Your task to perform on an android device: See recent photos Image 0: 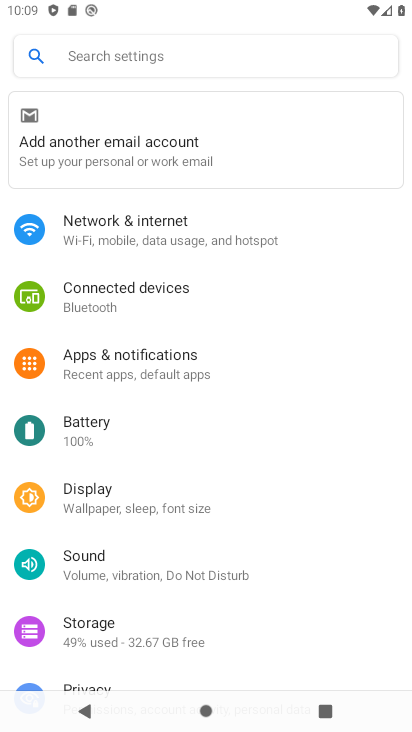
Step 0: press home button
Your task to perform on an android device: See recent photos Image 1: 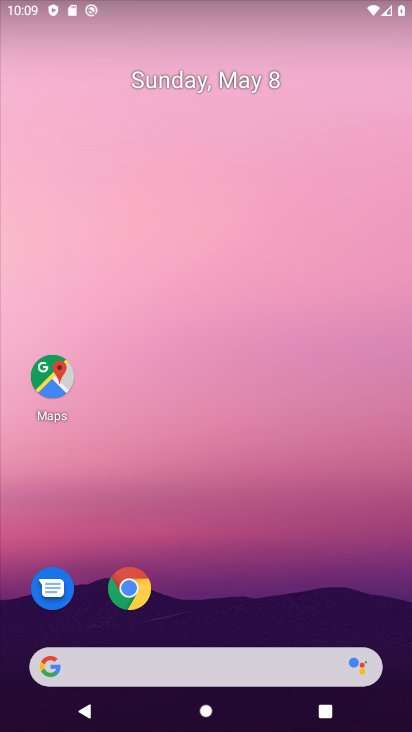
Step 1: drag from (206, 643) to (298, 241)
Your task to perform on an android device: See recent photos Image 2: 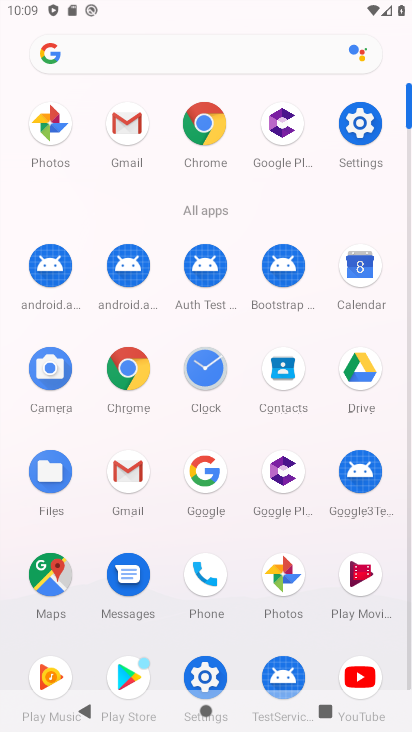
Step 2: click (277, 562)
Your task to perform on an android device: See recent photos Image 3: 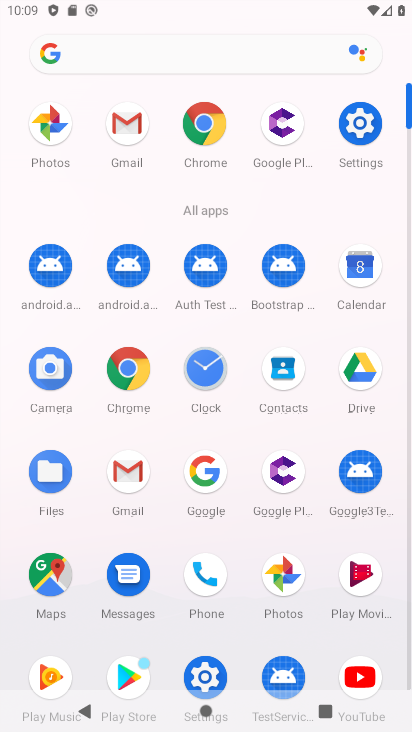
Step 3: click (277, 562)
Your task to perform on an android device: See recent photos Image 4: 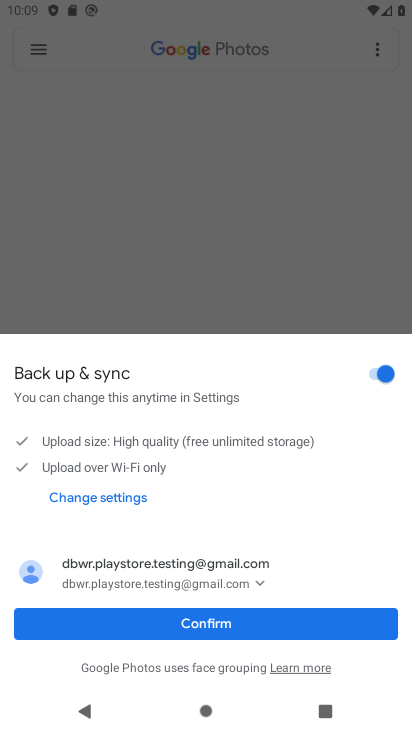
Step 4: click (234, 625)
Your task to perform on an android device: See recent photos Image 5: 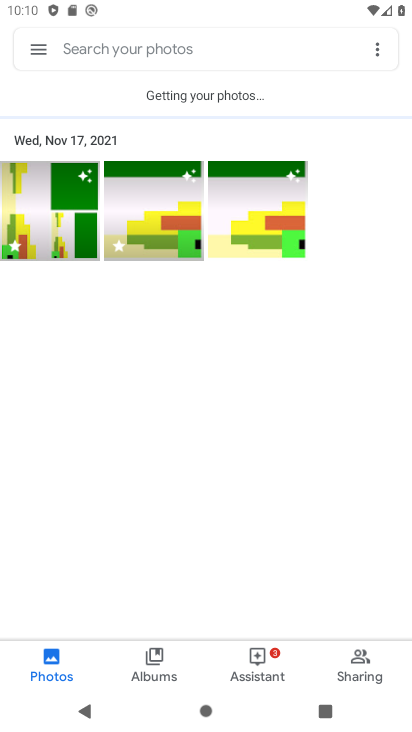
Step 5: task complete